Your task to perform on an android device: Open my contact list Image 0: 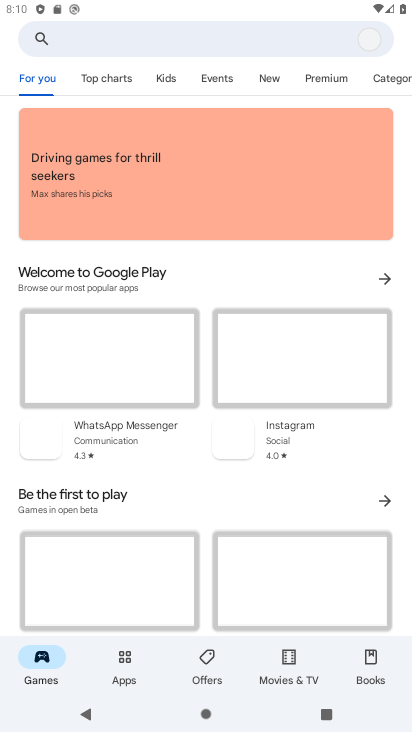
Step 0: press home button
Your task to perform on an android device: Open my contact list Image 1: 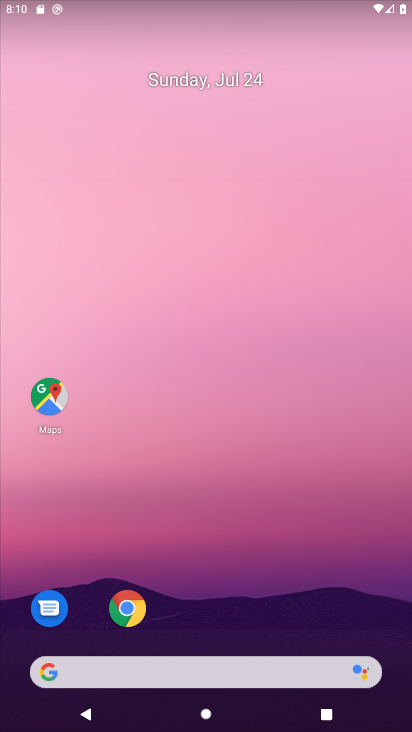
Step 1: drag from (289, 609) to (401, 69)
Your task to perform on an android device: Open my contact list Image 2: 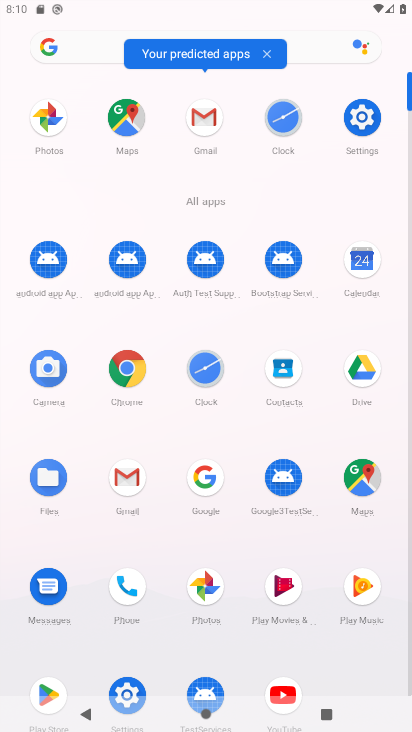
Step 2: click (293, 372)
Your task to perform on an android device: Open my contact list Image 3: 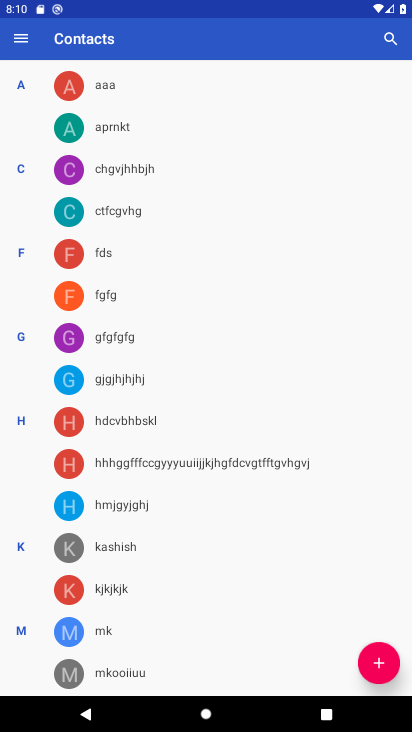
Step 3: task complete